Your task to perform on an android device: turn off notifications settings in the gmail app Image 0: 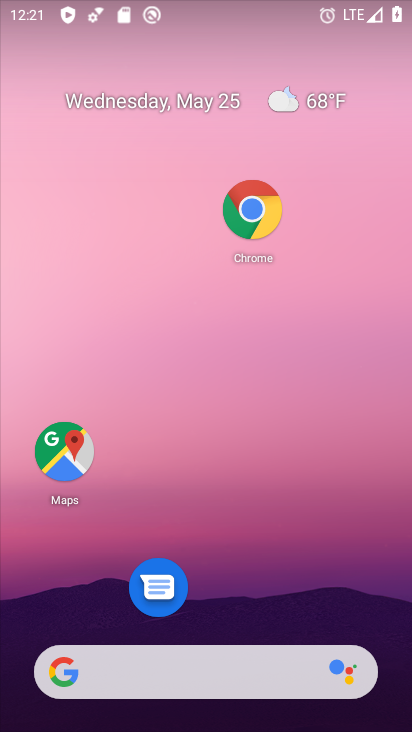
Step 0: press home button
Your task to perform on an android device: turn off notifications settings in the gmail app Image 1: 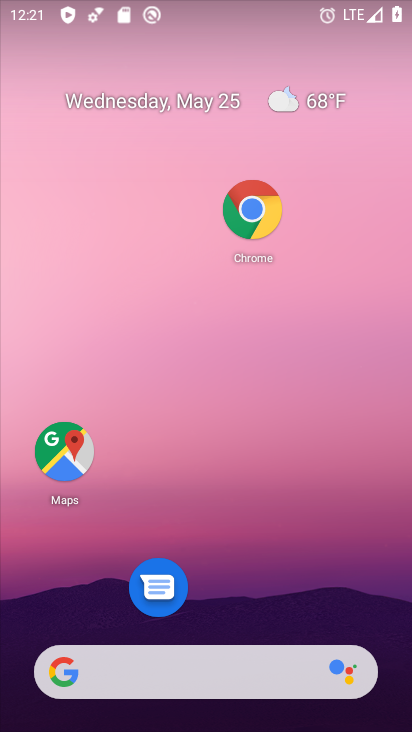
Step 1: drag from (224, 612) to (257, 152)
Your task to perform on an android device: turn off notifications settings in the gmail app Image 2: 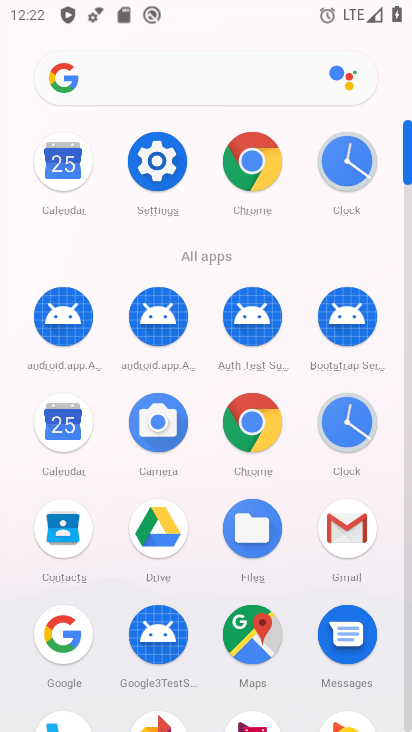
Step 2: click (347, 528)
Your task to perform on an android device: turn off notifications settings in the gmail app Image 3: 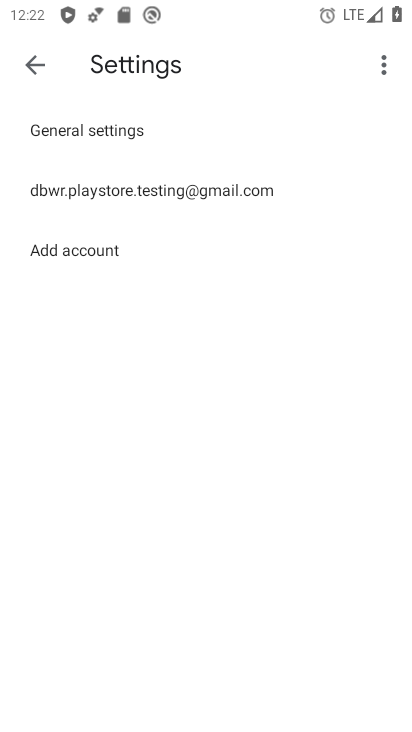
Step 3: click (163, 119)
Your task to perform on an android device: turn off notifications settings in the gmail app Image 4: 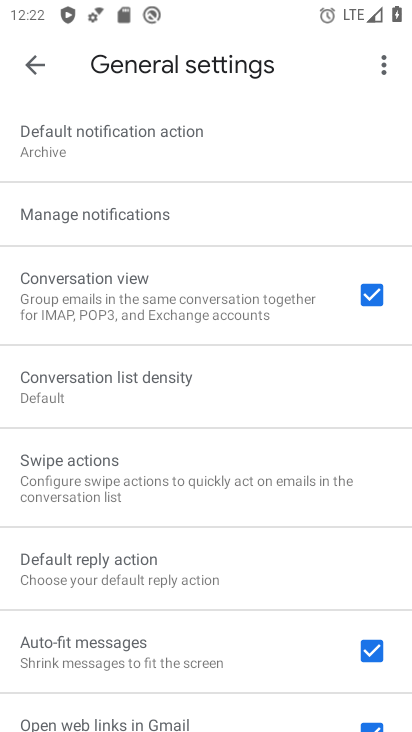
Step 4: click (170, 215)
Your task to perform on an android device: turn off notifications settings in the gmail app Image 5: 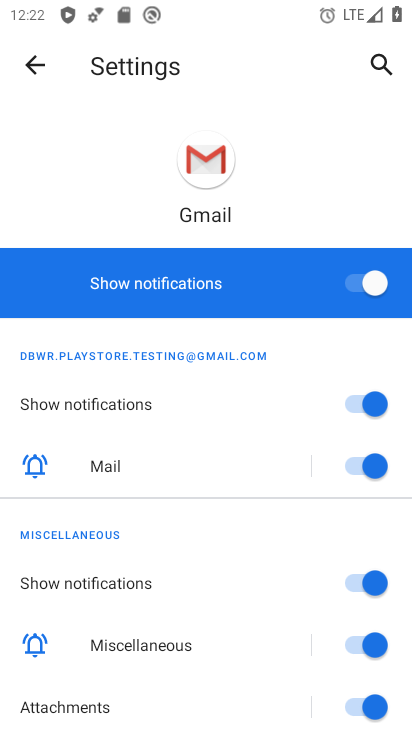
Step 5: drag from (199, 586) to (199, 252)
Your task to perform on an android device: turn off notifications settings in the gmail app Image 6: 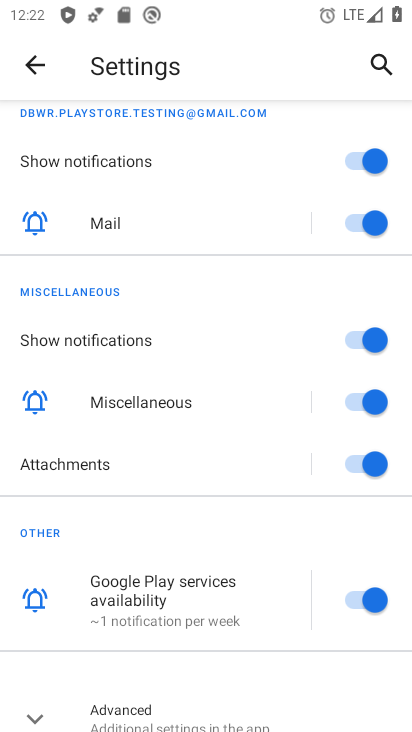
Step 6: drag from (174, 167) to (191, 570)
Your task to perform on an android device: turn off notifications settings in the gmail app Image 7: 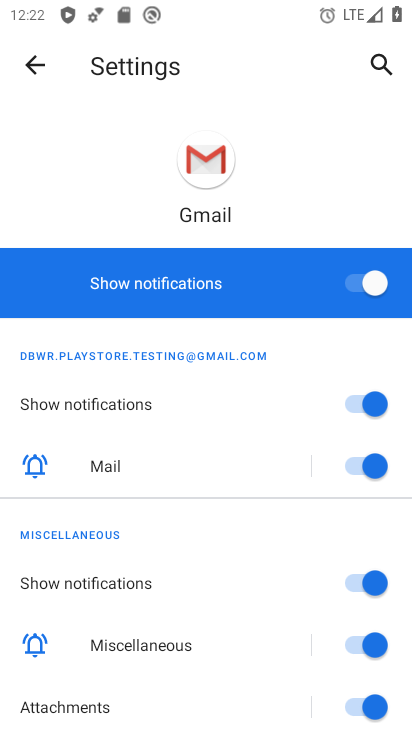
Step 7: click (349, 278)
Your task to perform on an android device: turn off notifications settings in the gmail app Image 8: 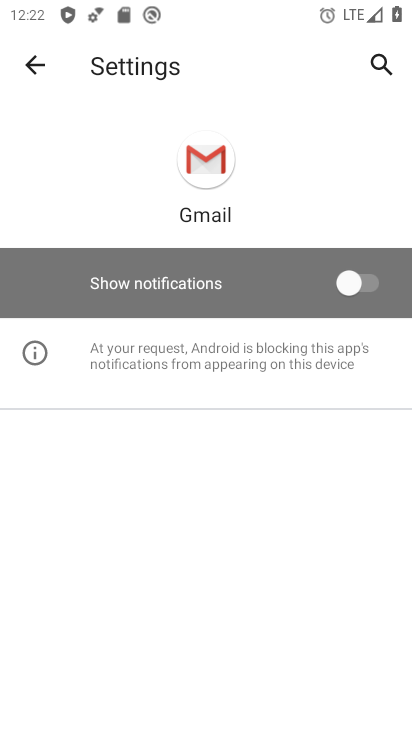
Step 8: task complete